Your task to perform on an android device: manage bookmarks in the chrome app Image 0: 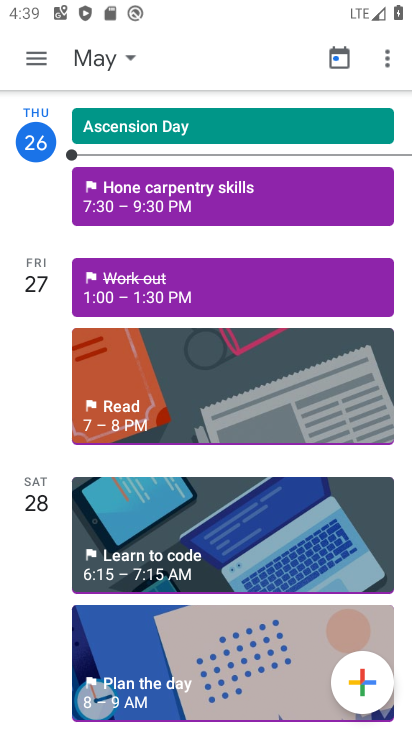
Step 0: press home button
Your task to perform on an android device: manage bookmarks in the chrome app Image 1: 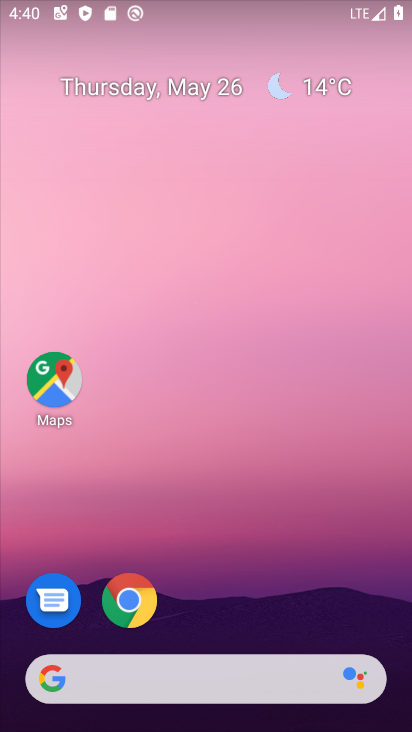
Step 1: click (137, 604)
Your task to perform on an android device: manage bookmarks in the chrome app Image 2: 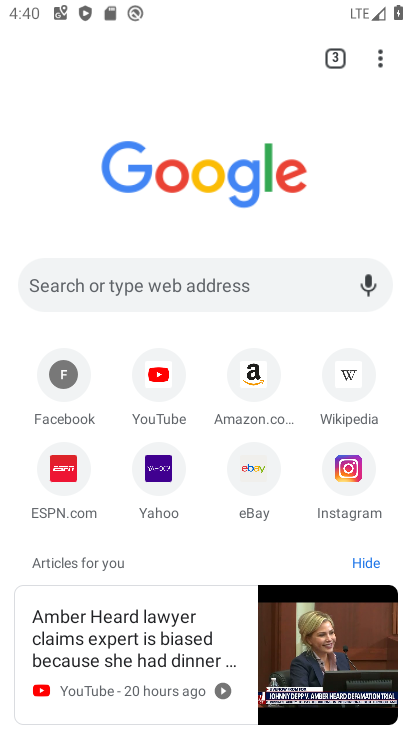
Step 2: click (375, 64)
Your task to perform on an android device: manage bookmarks in the chrome app Image 3: 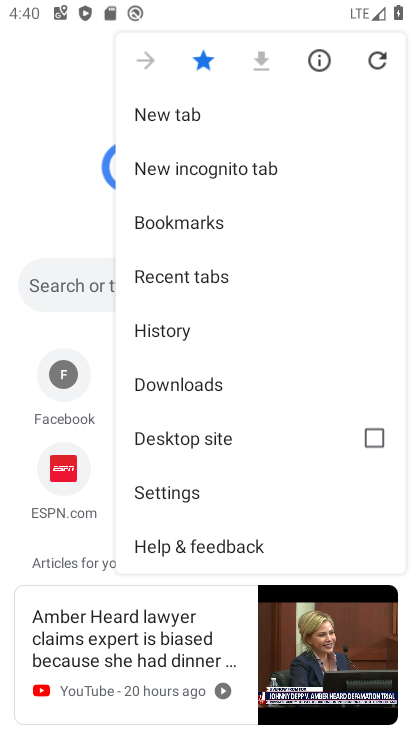
Step 3: click (209, 200)
Your task to perform on an android device: manage bookmarks in the chrome app Image 4: 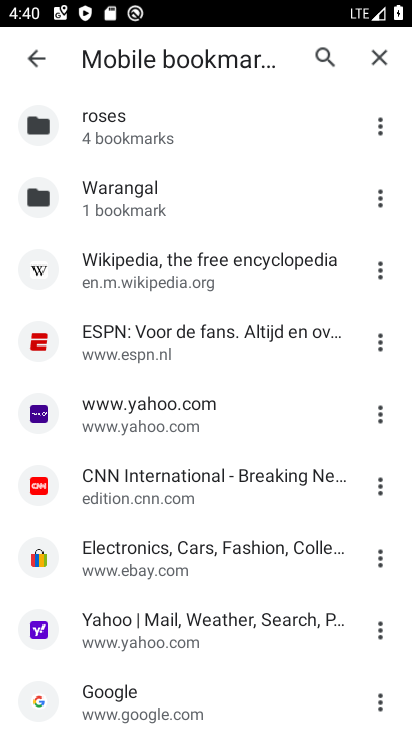
Step 4: click (391, 493)
Your task to perform on an android device: manage bookmarks in the chrome app Image 5: 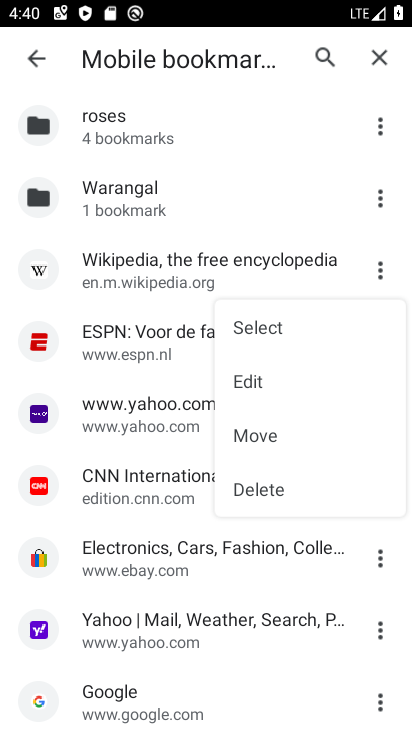
Step 5: click (384, 487)
Your task to perform on an android device: manage bookmarks in the chrome app Image 6: 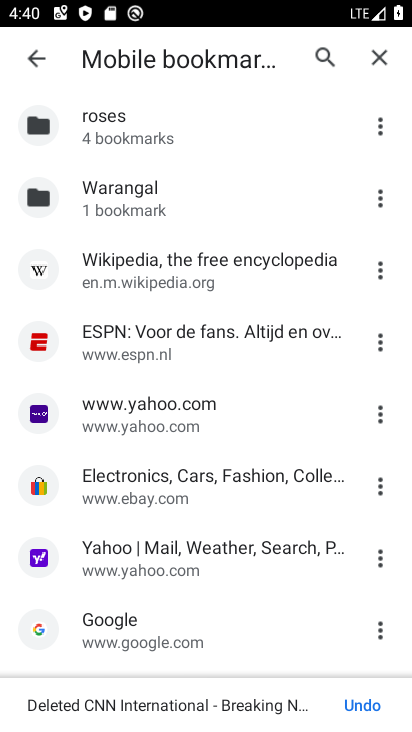
Step 6: task complete